Your task to perform on an android device: Open the web browser Image 0: 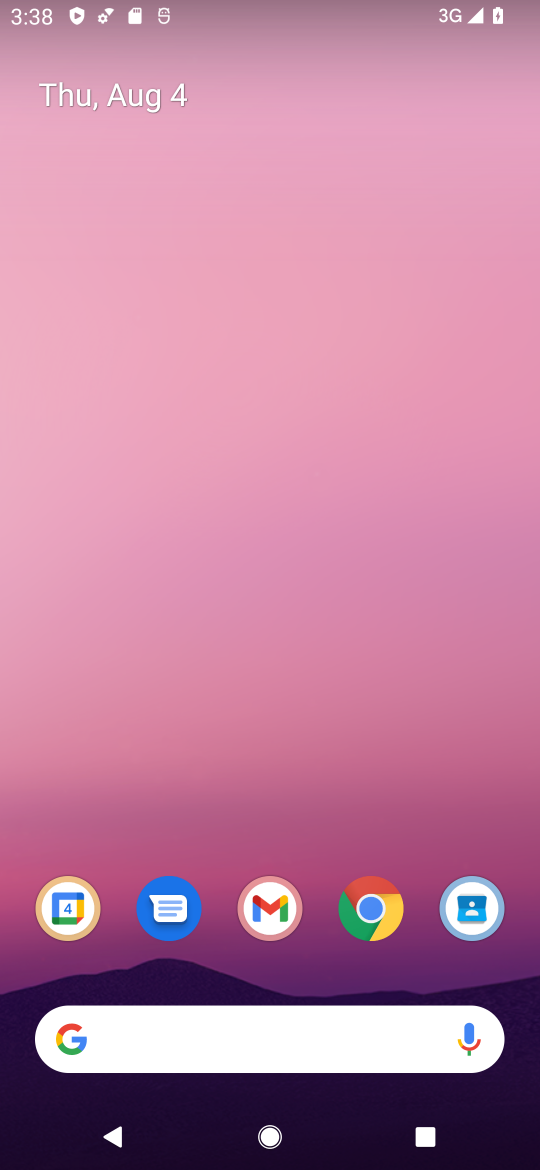
Step 0: click (370, 899)
Your task to perform on an android device: Open the web browser Image 1: 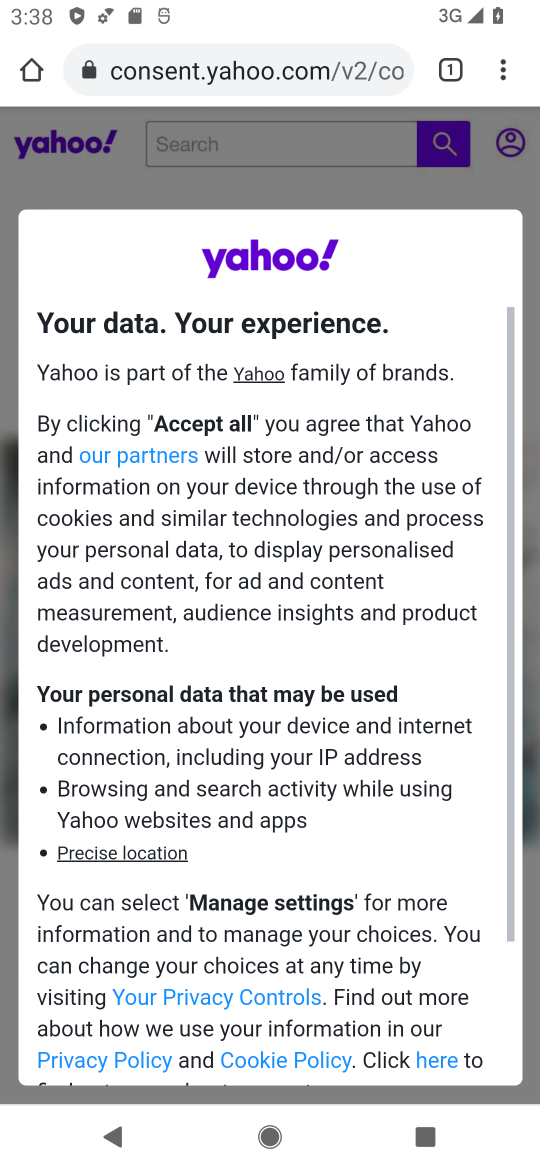
Step 1: task complete